Your task to perform on an android device: change the clock display to analog Image 0: 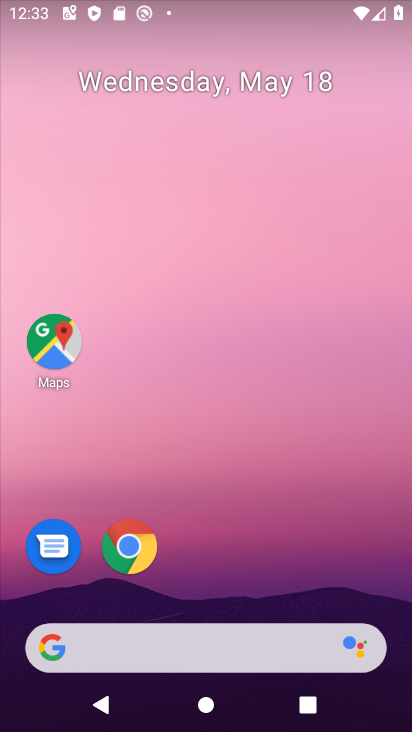
Step 0: press home button
Your task to perform on an android device: change the clock display to analog Image 1: 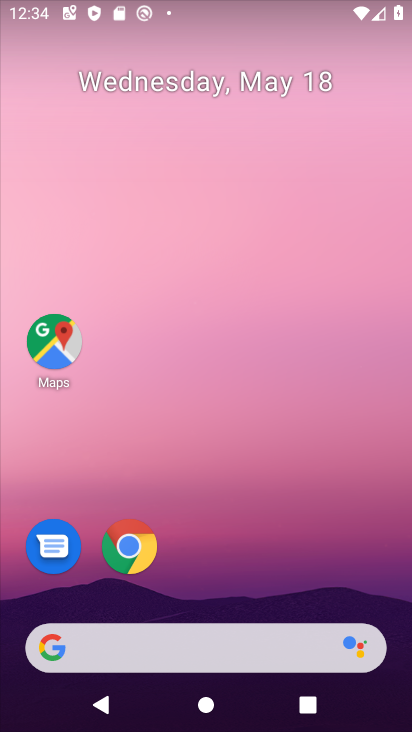
Step 1: drag from (241, 584) to (239, 418)
Your task to perform on an android device: change the clock display to analog Image 2: 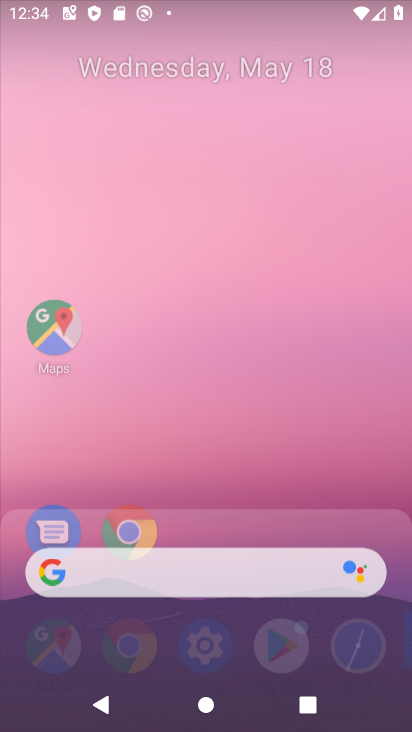
Step 2: drag from (335, 158) to (341, 122)
Your task to perform on an android device: change the clock display to analog Image 3: 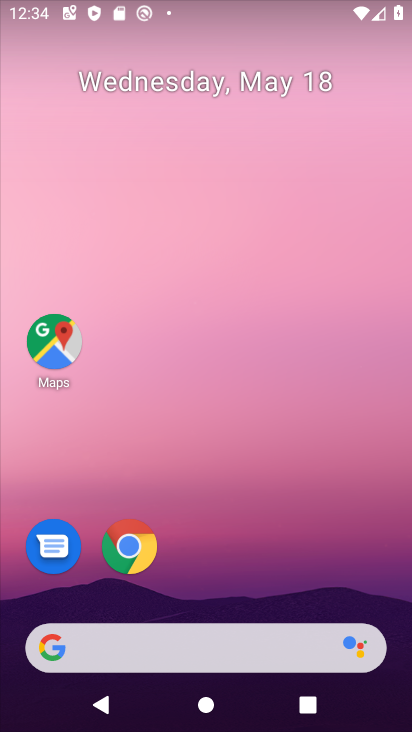
Step 3: drag from (253, 533) to (379, 6)
Your task to perform on an android device: change the clock display to analog Image 4: 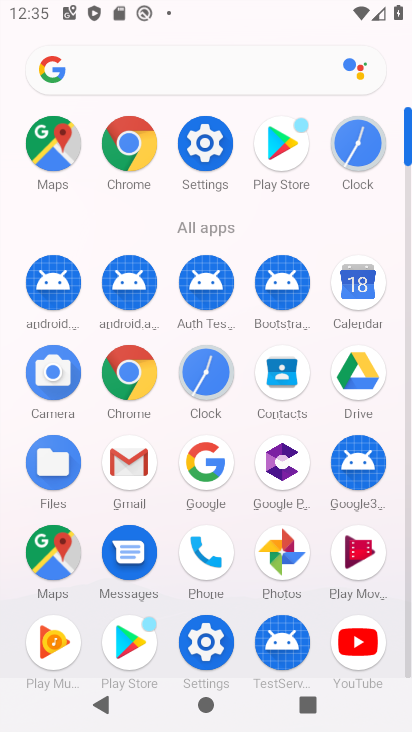
Step 4: click (206, 355)
Your task to perform on an android device: change the clock display to analog Image 5: 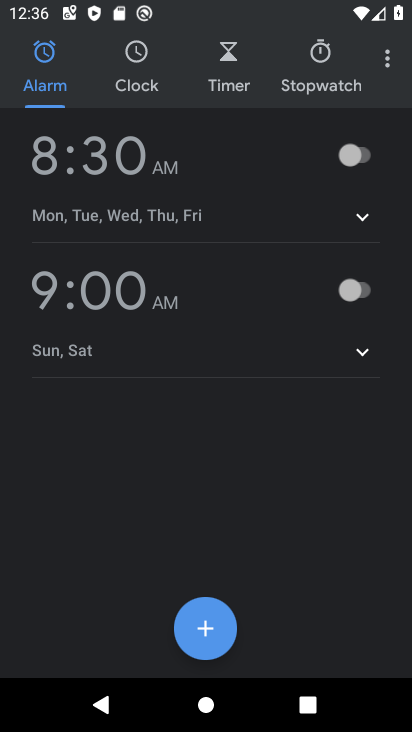
Step 5: click (383, 64)
Your task to perform on an android device: change the clock display to analog Image 6: 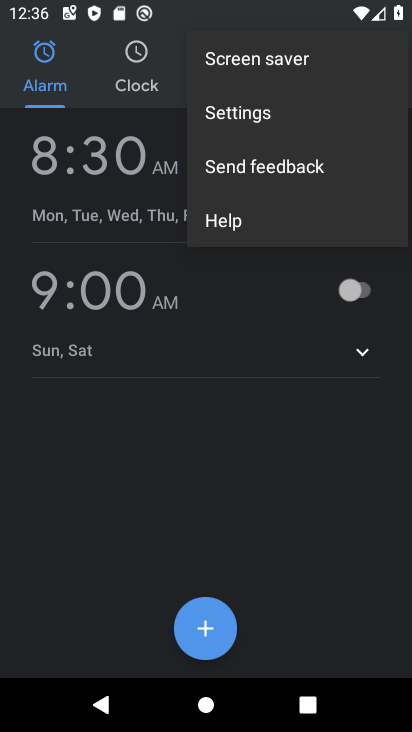
Step 6: click (304, 113)
Your task to perform on an android device: change the clock display to analog Image 7: 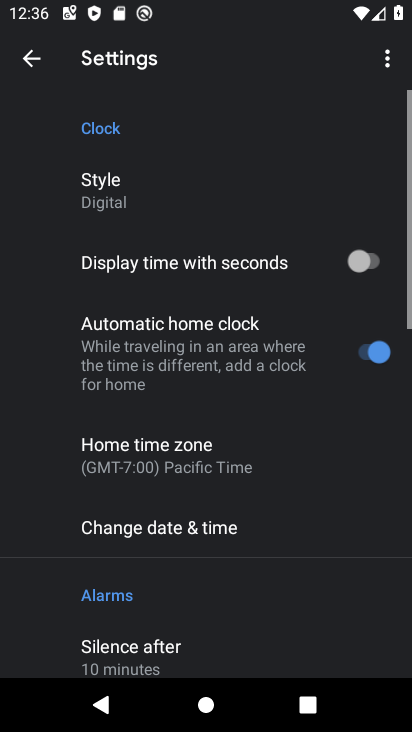
Step 7: click (103, 205)
Your task to perform on an android device: change the clock display to analog Image 8: 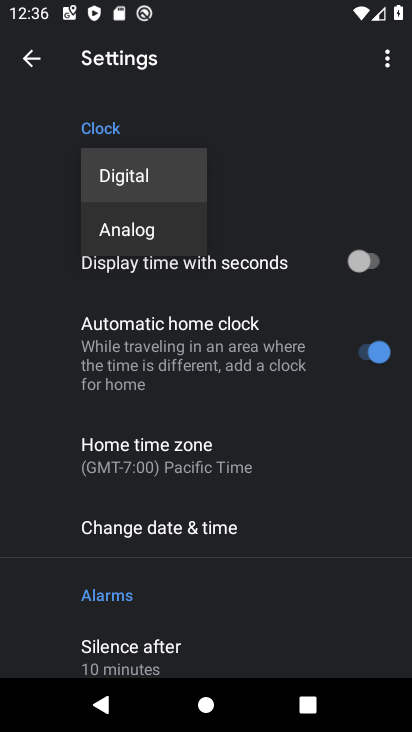
Step 8: click (109, 214)
Your task to perform on an android device: change the clock display to analog Image 9: 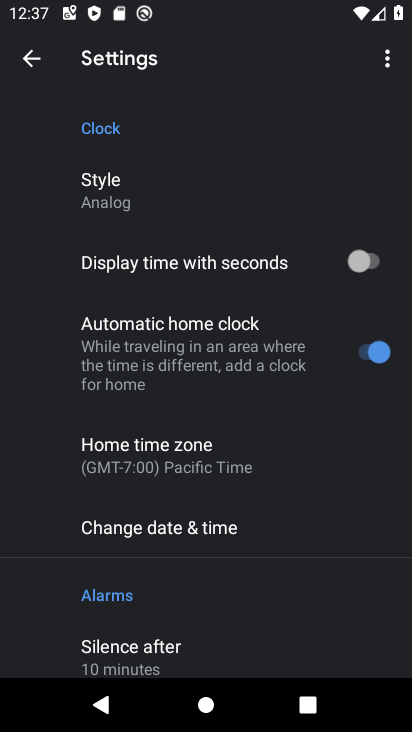
Step 9: task complete